Your task to perform on an android device: open a bookmark in the chrome app Image 0: 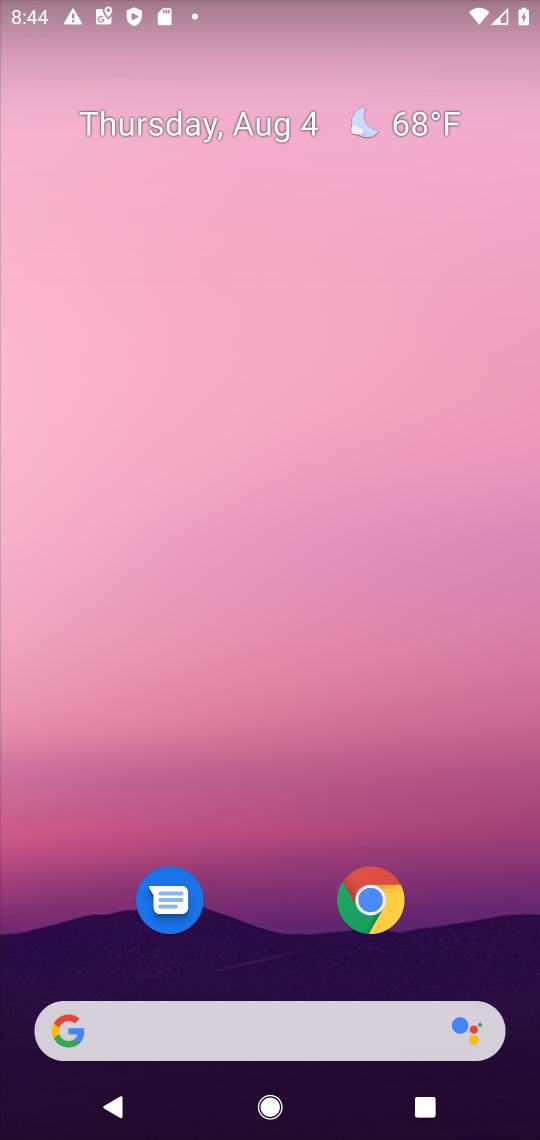
Step 0: click (378, 892)
Your task to perform on an android device: open a bookmark in the chrome app Image 1: 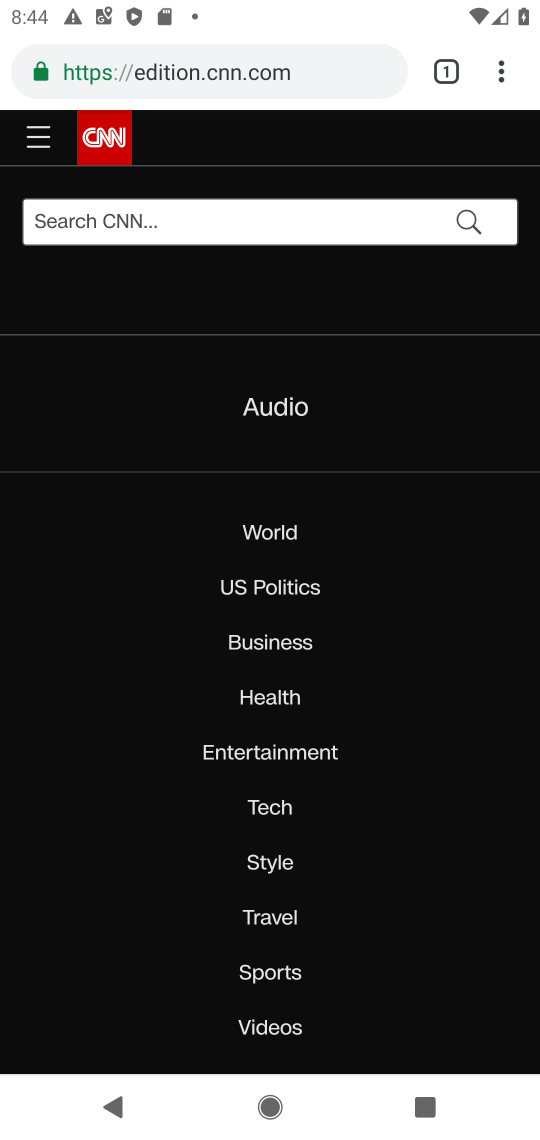
Step 1: click (503, 73)
Your task to perform on an android device: open a bookmark in the chrome app Image 2: 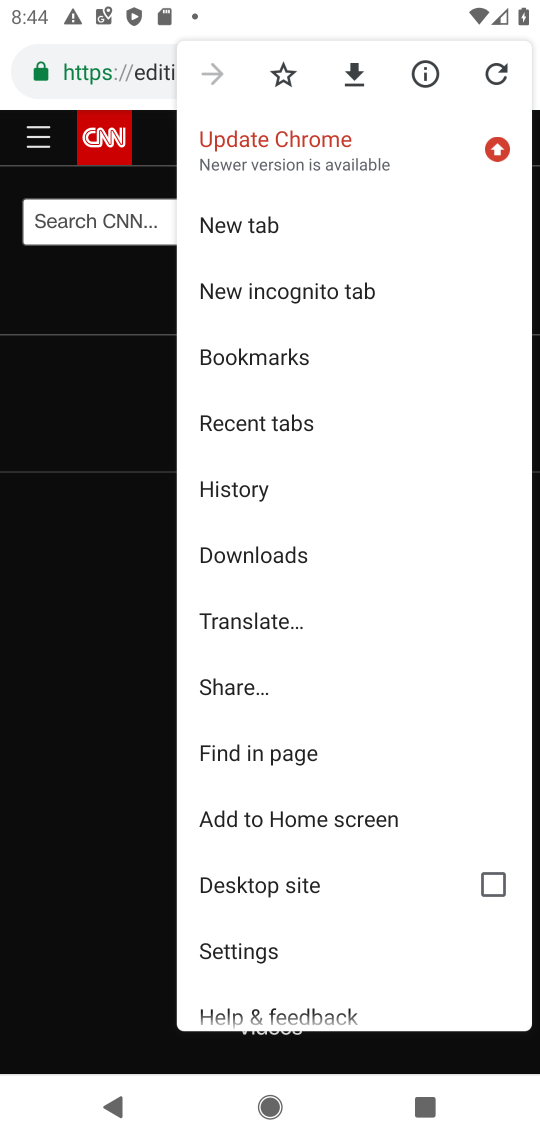
Step 2: click (257, 364)
Your task to perform on an android device: open a bookmark in the chrome app Image 3: 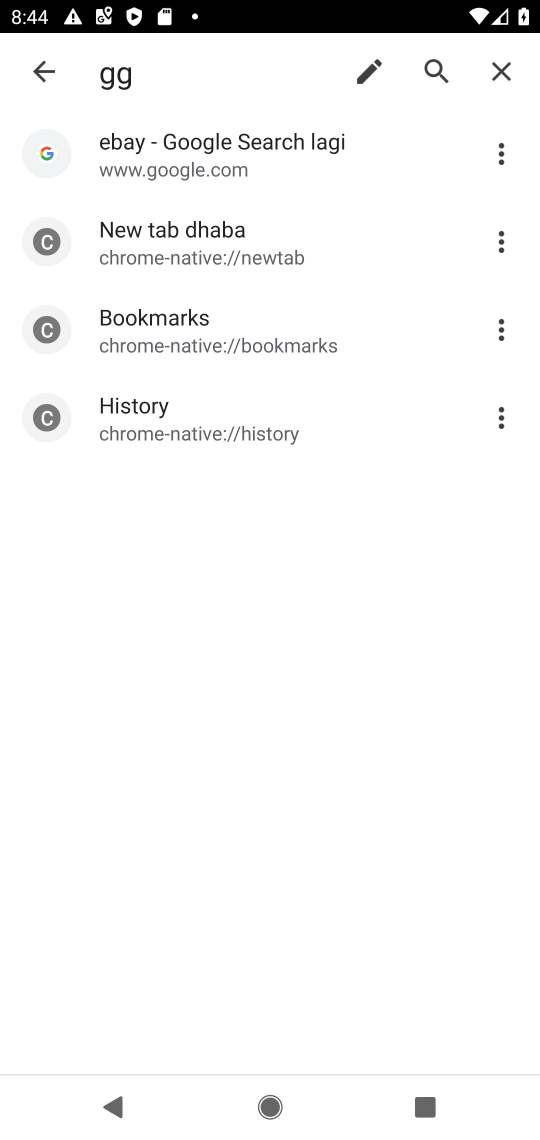
Step 3: click (213, 259)
Your task to perform on an android device: open a bookmark in the chrome app Image 4: 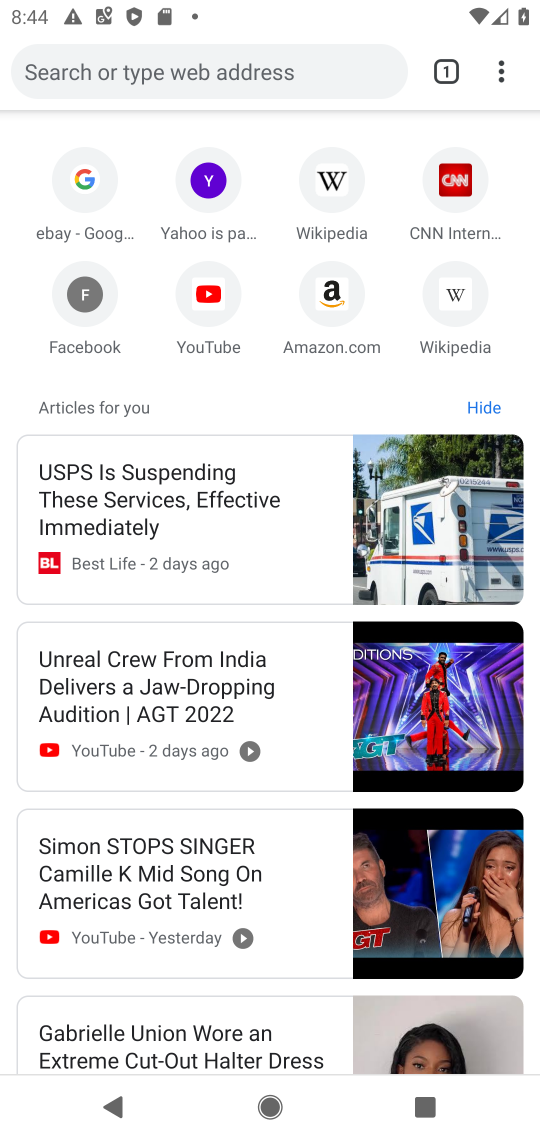
Step 4: task complete